Your task to perform on an android device: change timer sound Image 0: 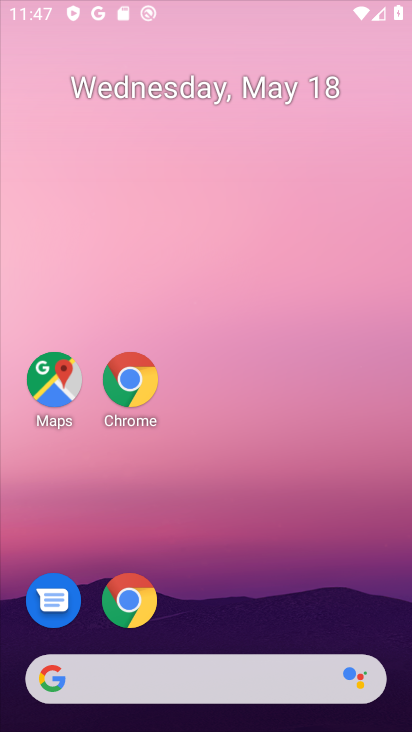
Step 0: drag from (286, 697) to (202, 137)
Your task to perform on an android device: change timer sound Image 1: 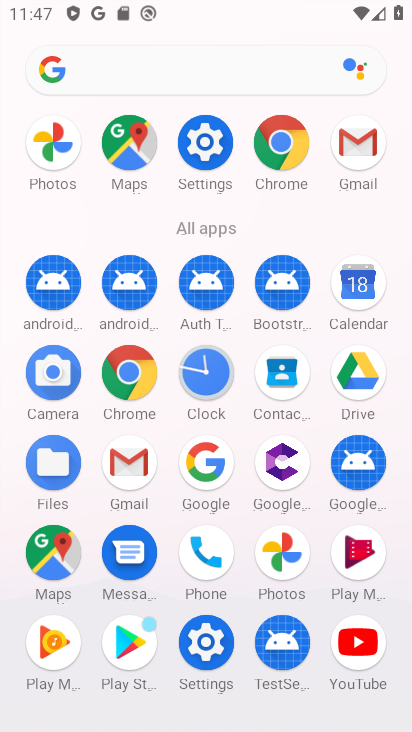
Step 1: click (201, 380)
Your task to perform on an android device: change timer sound Image 2: 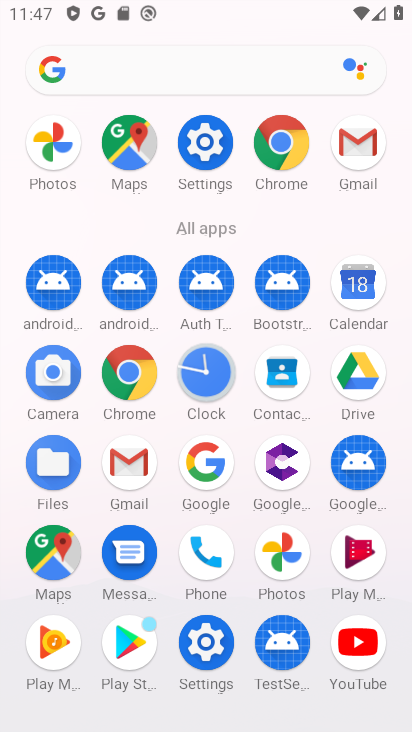
Step 2: click (204, 379)
Your task to perform on an android device: change timer sound Image 3: 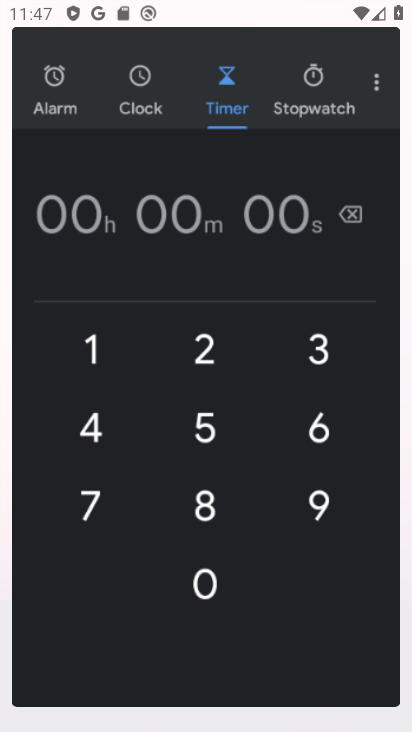
Step 3: click (204, 379)
Your task to perform on an android device: change timer sound Image 4: 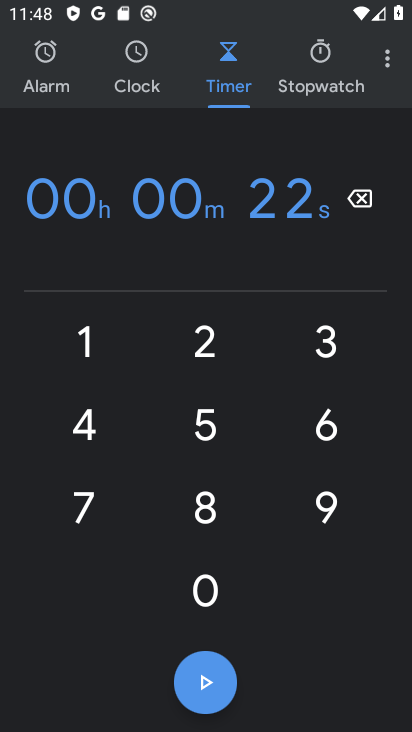
Step 4: click (202, 516)
Your task to perform on an android device: change timer sound Image 5: 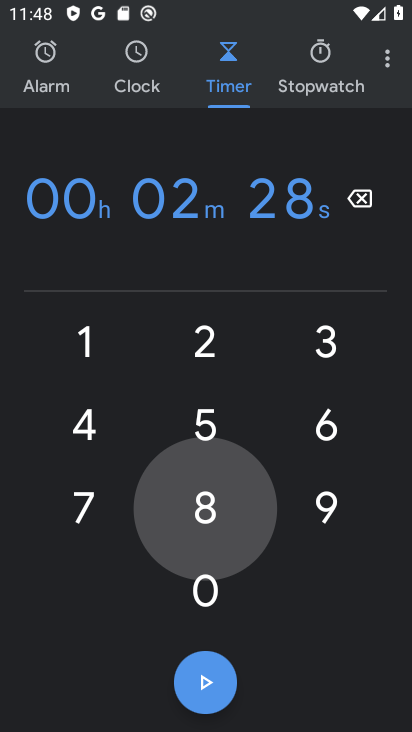
Step 5: click (208, 493)
Your task to perform on an android device: change timer sound Image 6: 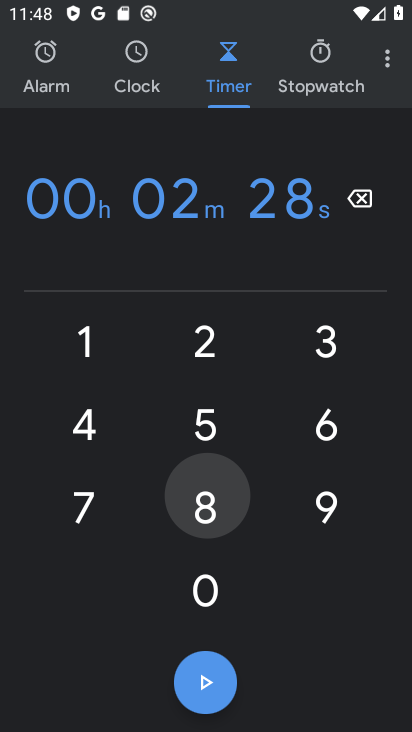
Step 6: click (208, 493)
Your task to perform on an android device: change timer sound Image 7: 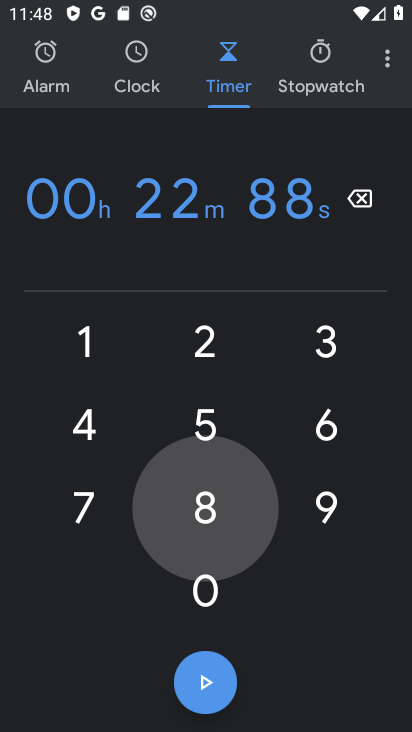
Step 7: click (209, 493)
Your task to perform on an android device: change timer sound Image 8: 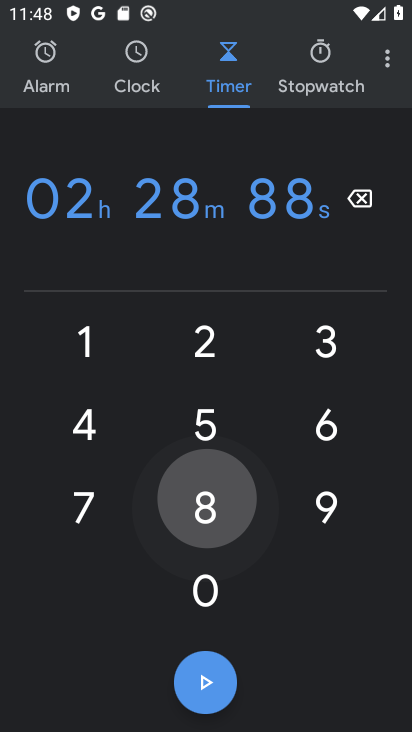
Step 8: click (209, 493)
Your task to perform on an android device: change timer sound Image 9: 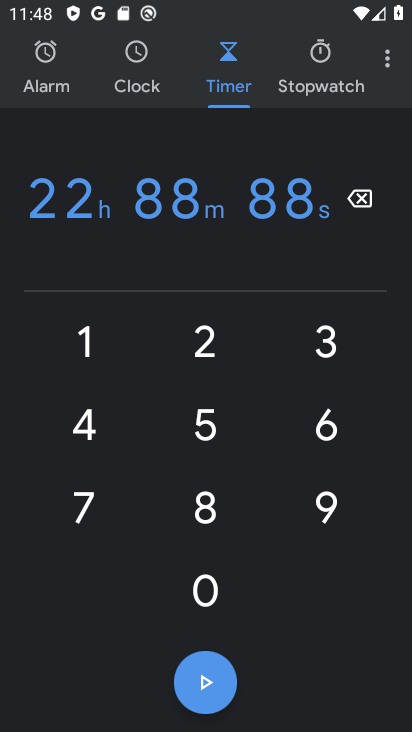
Step 9: click (383, 52)
Your task to perform on an android device: change timer sound Image 10: 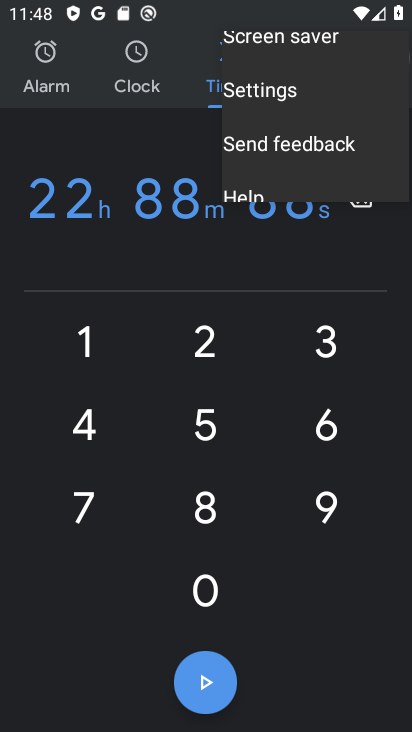
Step 10: click (383, 53)
Your task to perform on an android device: change timer sound Image 11: 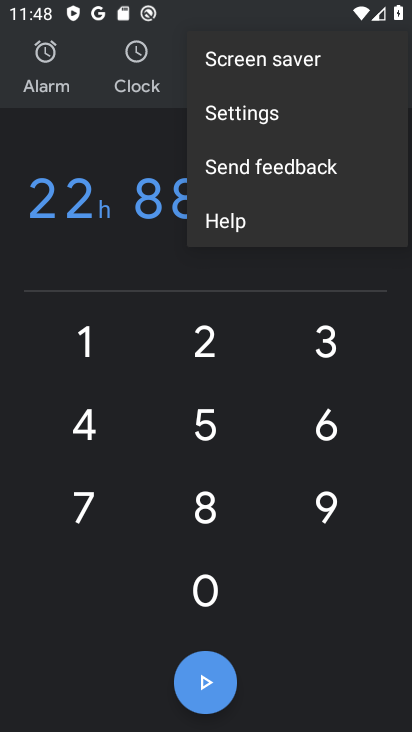
Step 11: click (383, 53)
Your task to perform on an android device: change timer sound Image 12: 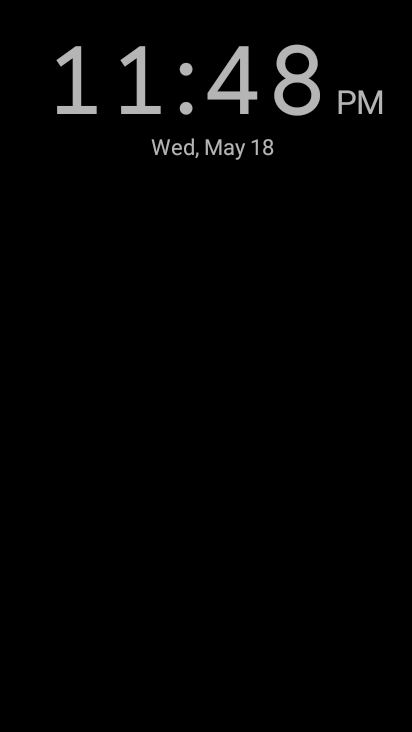
Step 12: press back button
Your task to perform on an android device: change timer sound Image 13: 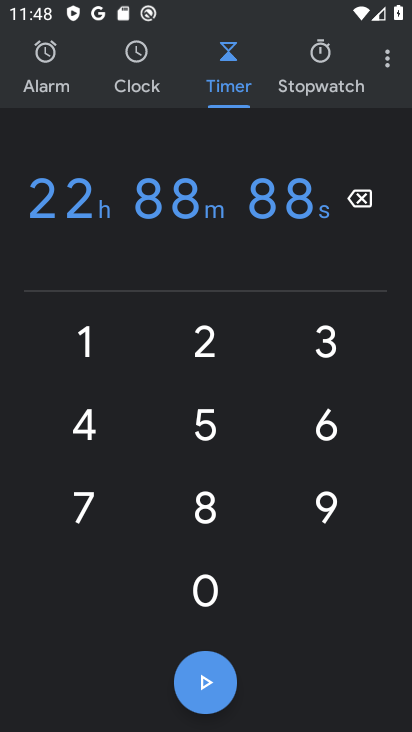
Step 13: click (374, 51)
Your task to perform on an android device: change timer sound Image 14: 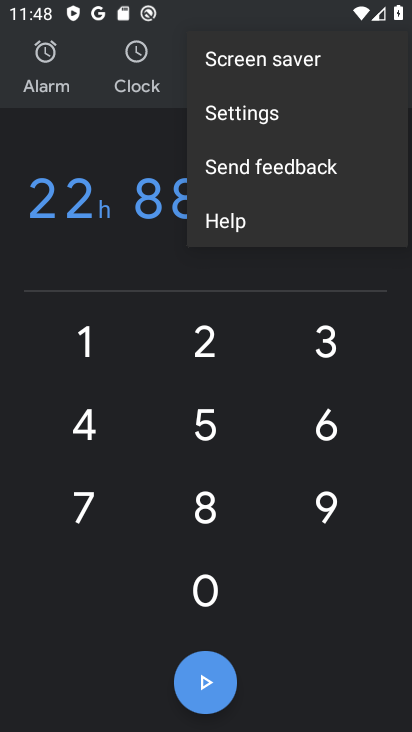
Step 14: click (244, 117)
Your task to perform on an android device: change timer sound Image 15: 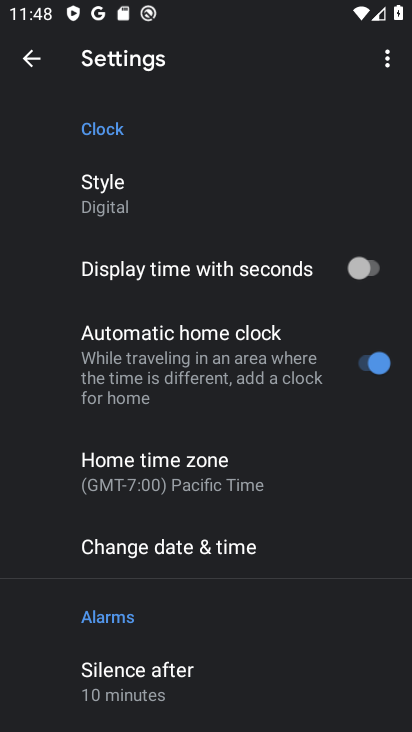
Step 15: click (154, 549)
Your task to perform on an android device: change timer sound Image 16: 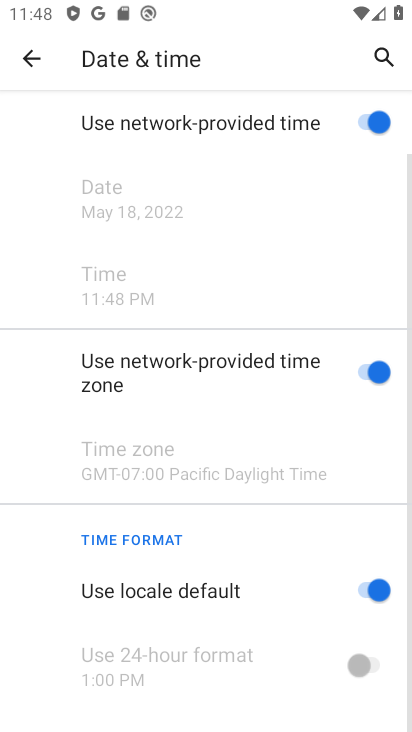
Step 16: drag from (180, 597) to (118, 256)
Your task to perform on an android device: change timer sound Image 17: 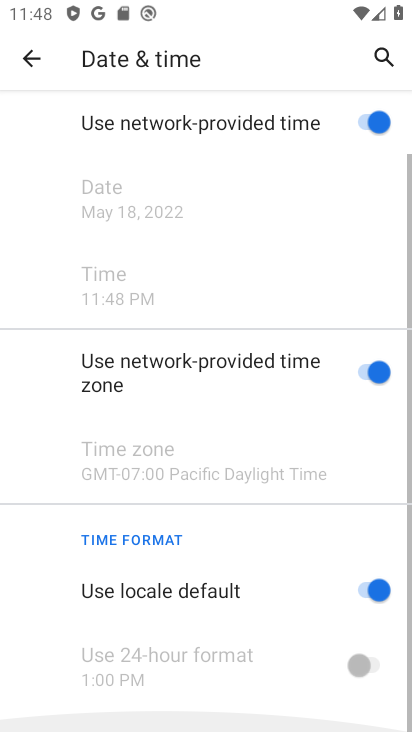
Step 17: drag from (220, 531) to (209, 227)
Your task to perform on an android device: change timer sound Image 18: 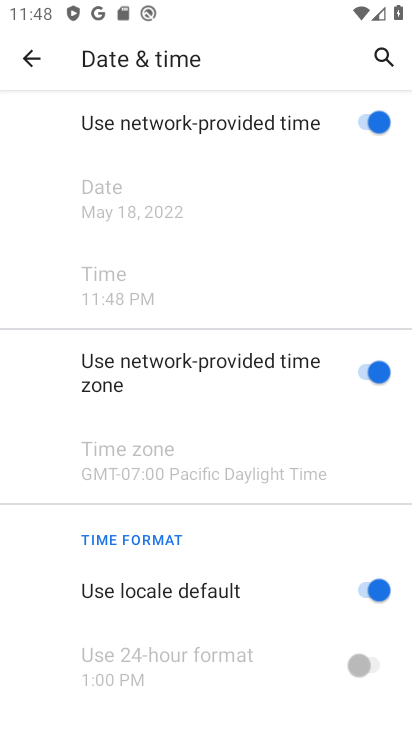
Step 18: click (27, 54)
Your task to perform on an android device: change timer sound Image 19: 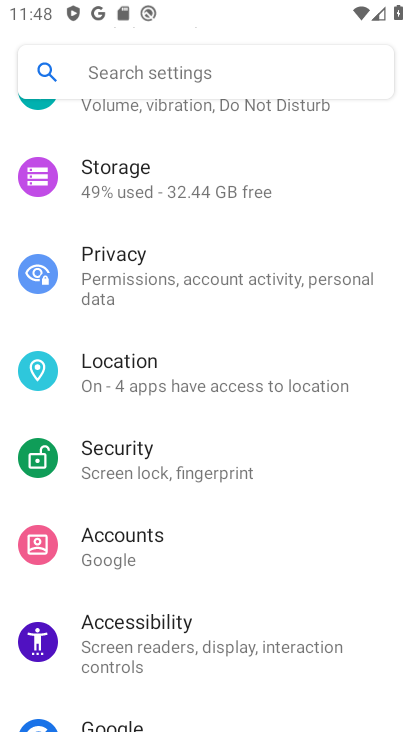
Step 19: drag from (183, 546) to (154, 169)
Your task to perform on an android device: change timer sound Image 20: 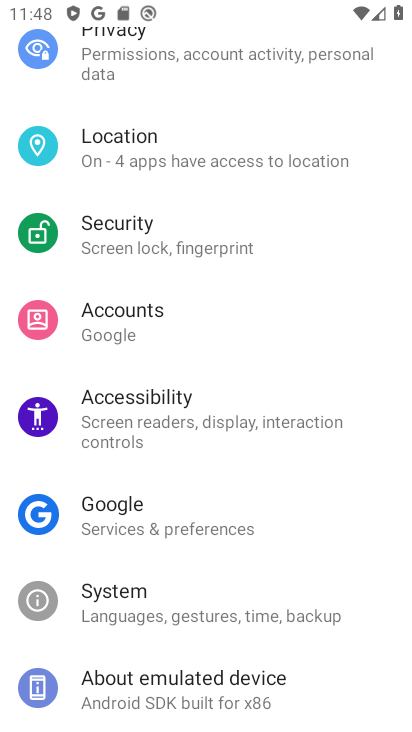
Step 20: press back button
Your task to perform on an android device: change timer sound Image 21: 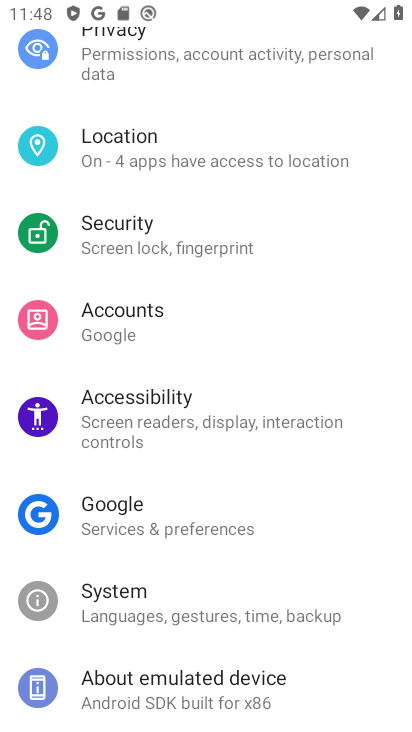
Step 21: press back button
Your task to perform on an android device: change timer sound Image 22: 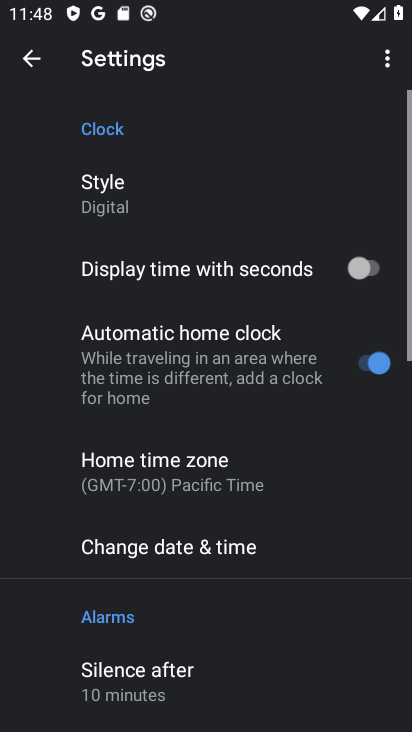
Step 22: press back button
Your task to perform on an android device: change timer sound Image 23: 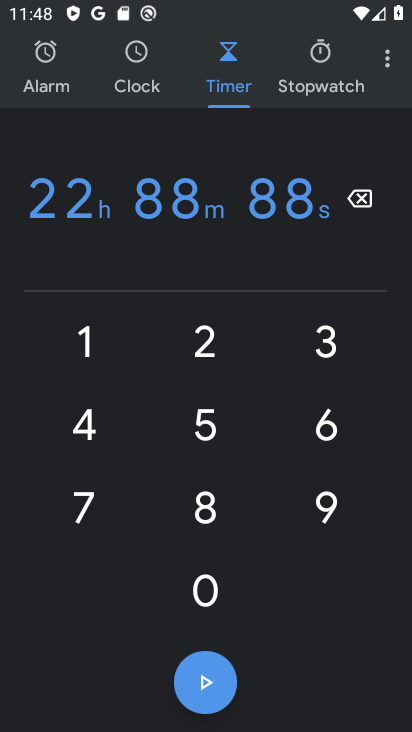
Step 23: press back button
Your task to perform on an android device: change timer sound Image 24: 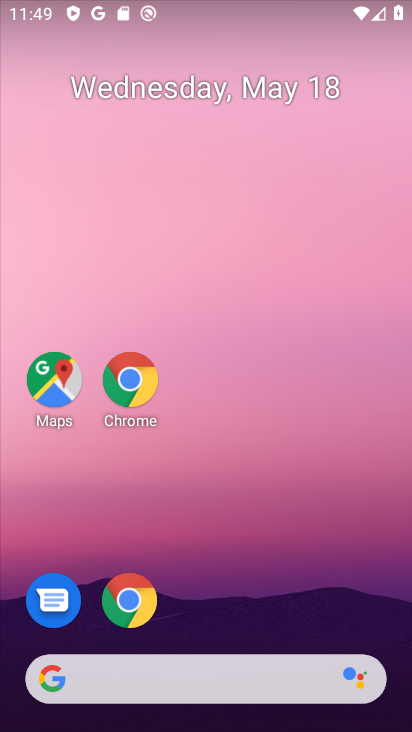
Step 24: drag from (215, 571) to (182, 5)
Your task to perform on an android device: change timer sound Image 25: 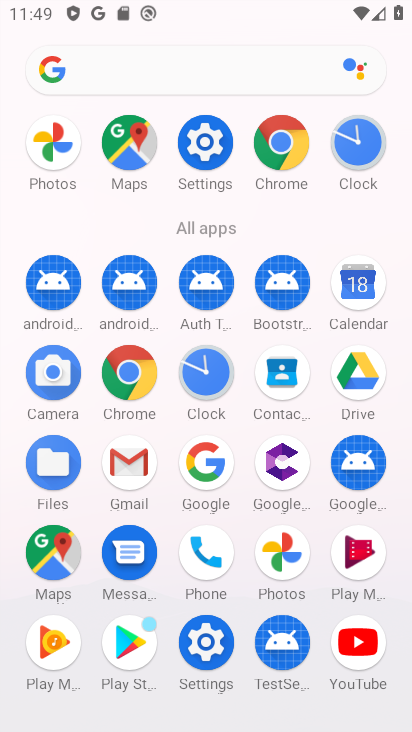
Step 25: click (209, 367)
Your task to perform on an android device: change timer sound Image 26: 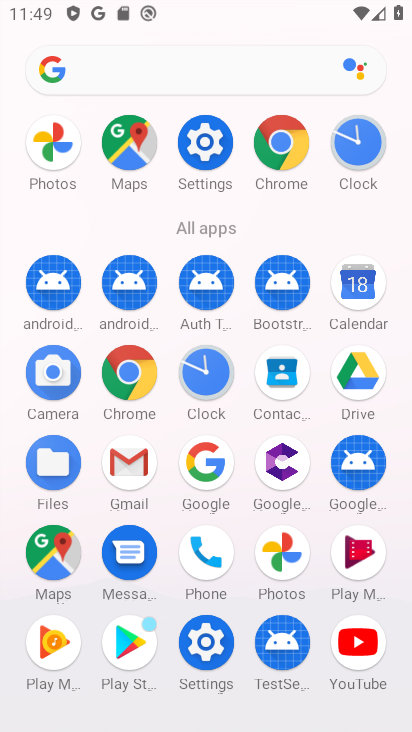
Step 26: click (209, 367)
Your task to perform on an android device: change timer sound Image 27: 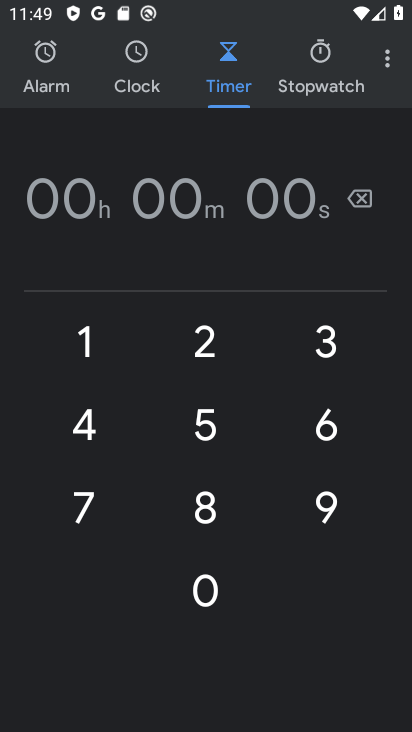
Step 27: click (383, 59)
Your task to perform on an android device: change timer sound Image 28: 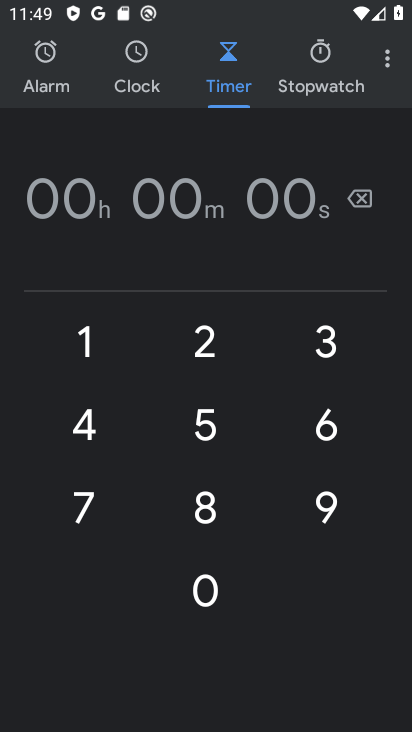
Step 28: click (384, 59)
Your task to perform on an android device: change timer sound Image 29: 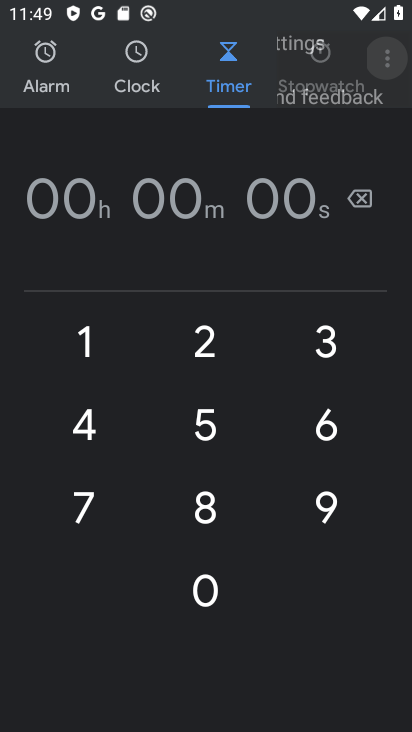
Step 29: click (385, 59)
Your task to perform on an android device: change timer sound Image 30: 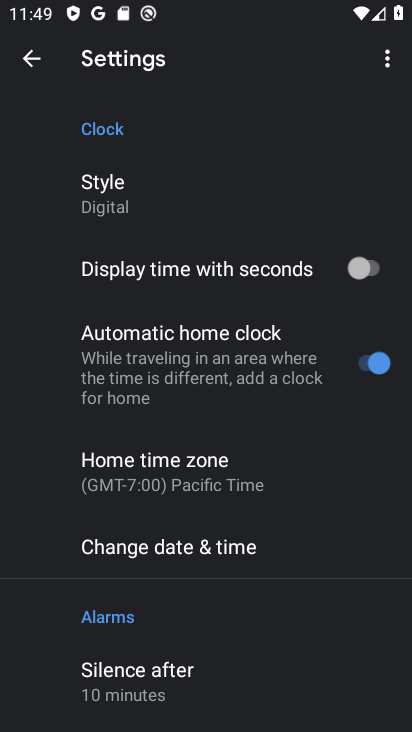
Step 30: drag from (163, 495) to (190, 179)
Your task to perform on an android device: change timer sound Image 31: 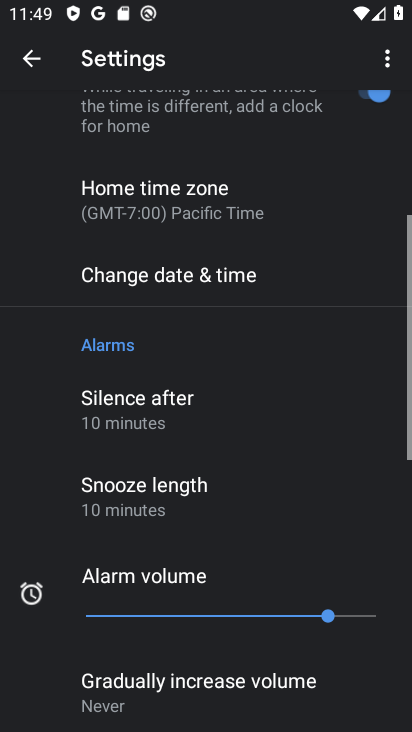
Step 31: drag from (190, 489) to (140, 173)
Your task to perform on an android device: change timer sound Image 32: 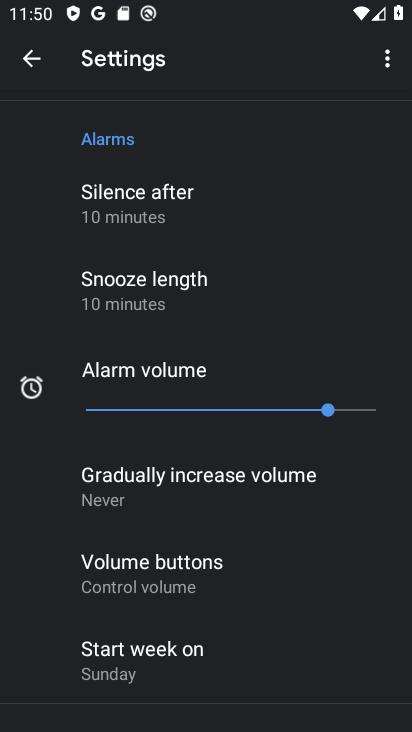
Step 32: drag from (166, 254) to (184, 528)
Your task to perform on an android device: change timer sound Image 33: 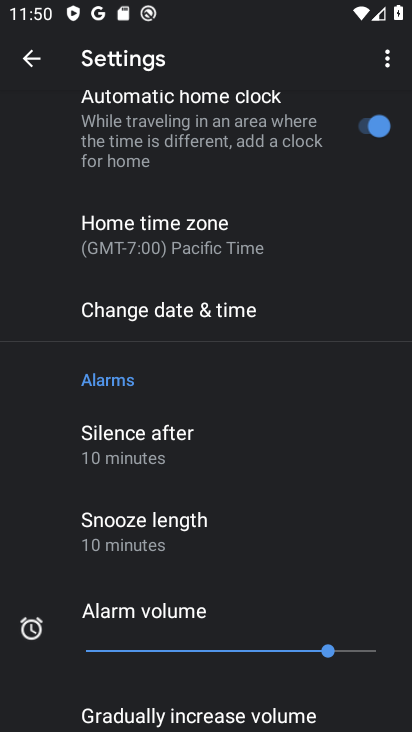
Step 33: drag from (145, 254) to (197, 590)
Your task to perform on an android device: change timer sound Image 34: 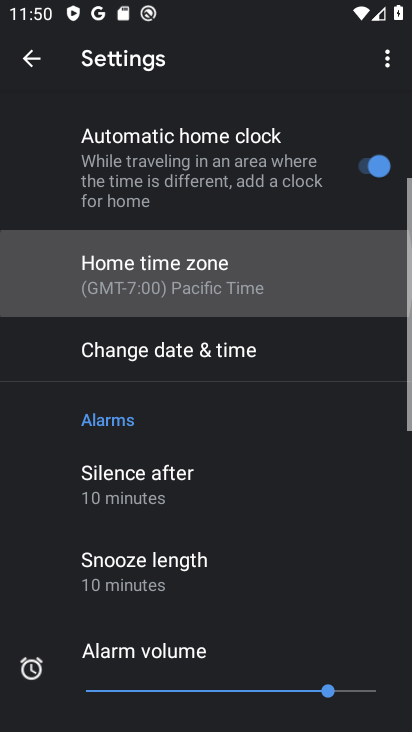
Step 34: drag from (161, 305) to (226, 724)
Your task to perform on an android device: change timer sound Image 35: 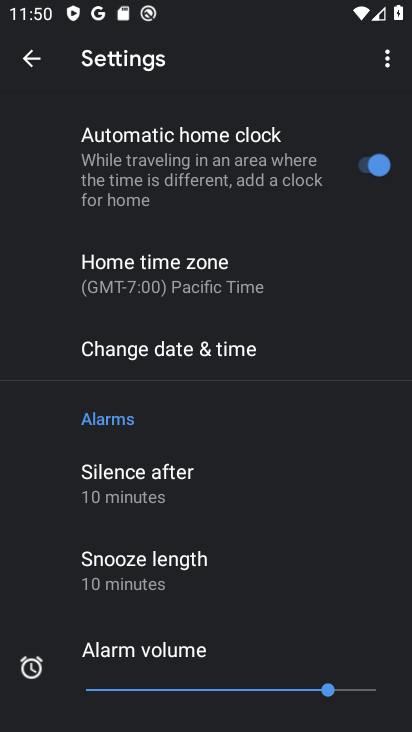
Step 35: drag from (119, 270) to (168, 523)
Your task to perform on an android device: change timer sound Image 36: 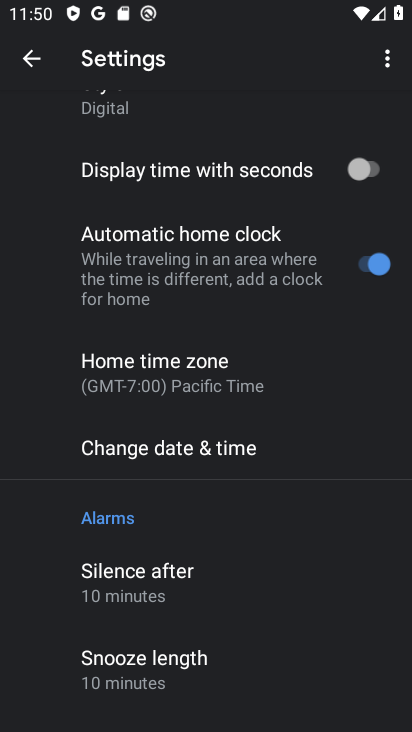
Step 36: drag from (147, 569) to (149, 316)
Your task to perform on an android device: change timer sound Image 37: 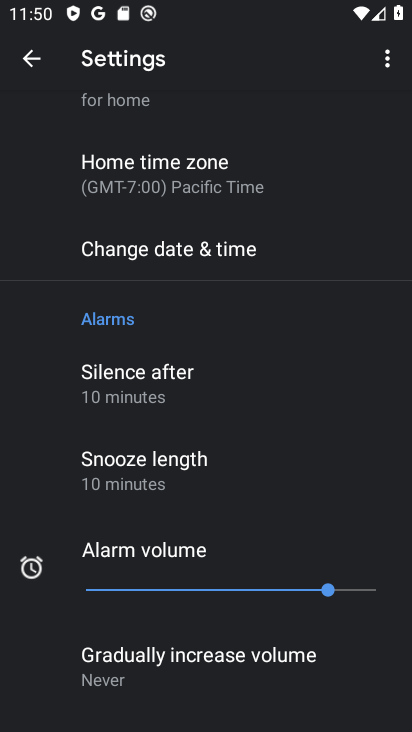
Step 37: drag from (156, 514) to (179, 136)
Your task to perform on an android device: change timer sound Image 38: 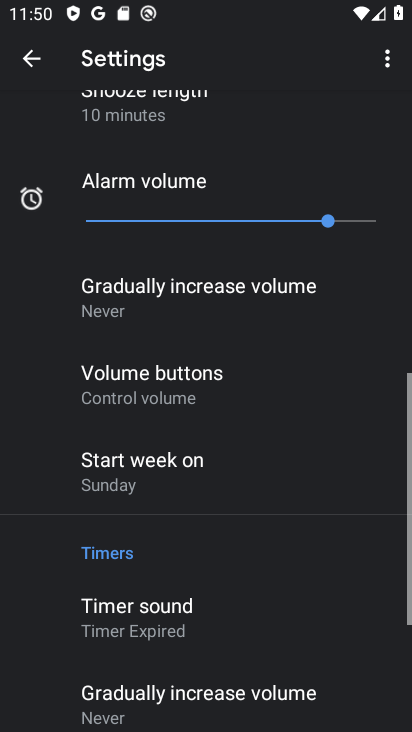
Step 38: drag from (187, 350) to (187, 88)
Your task to perform on an android device: change timer sound Image 39: 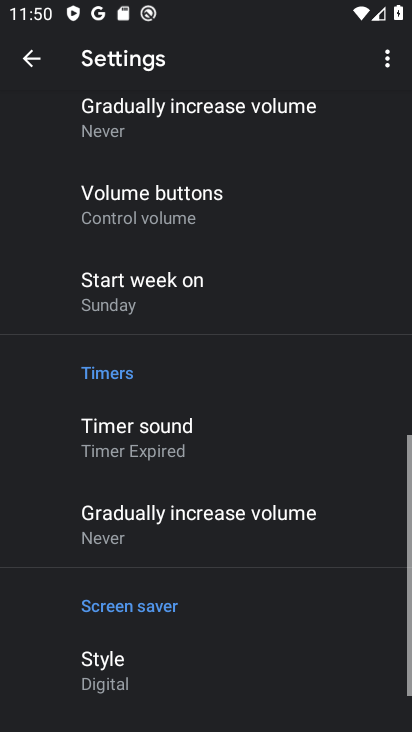
Step 39: drag from (182, 329) to (174, 77)
Your task to perform on an android device: change timer sound Image 40: 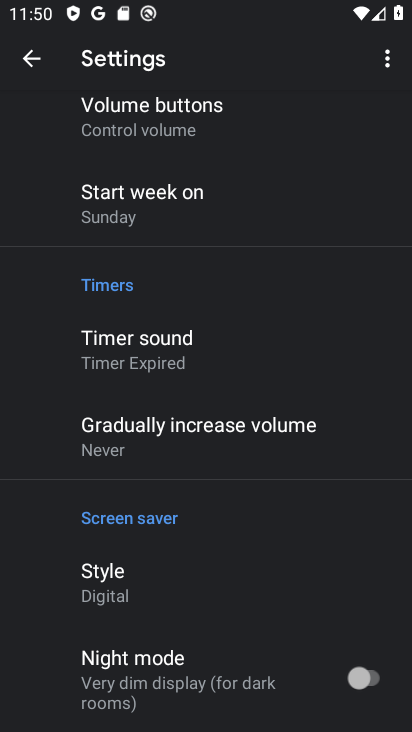
Step 40: click (111, 357)
Your task to perform on an android device: change timer sound Image 41: 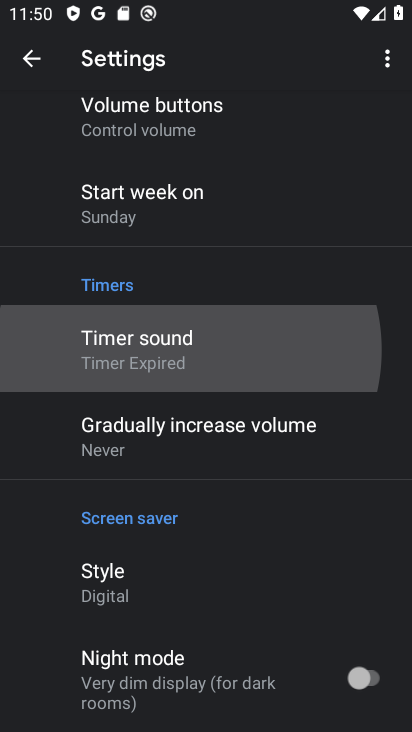
Step 41: click (111, 357)
Your task to perform on an android device: change timer sound Image 42: 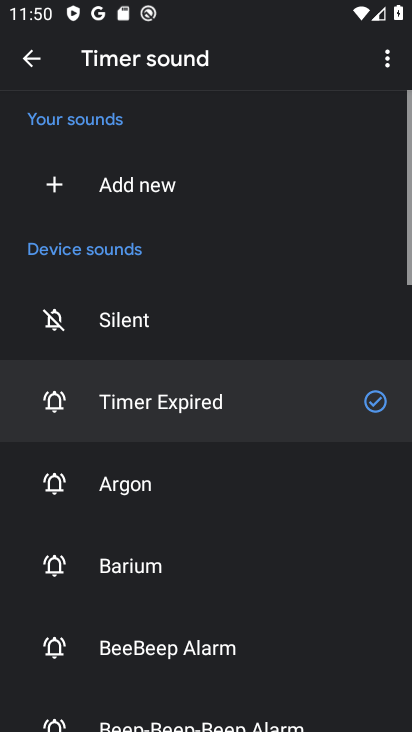
Step 42: click (119, 349)
Your task to perform on an android device: change timer sound Image 43: 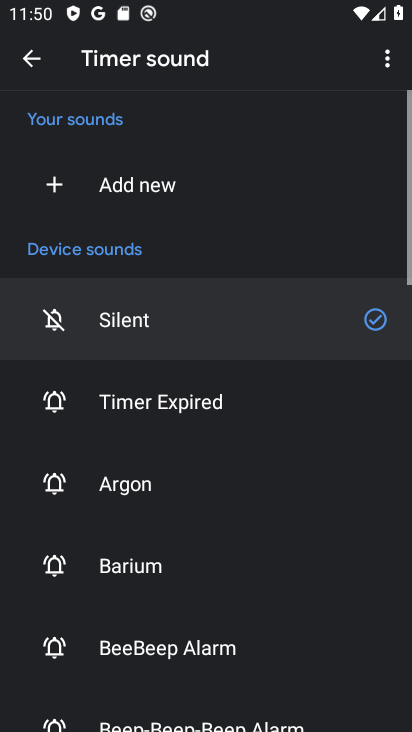
Step 43: click (51, 490)
Your task to perform on an android device: change timer sound Image 44: 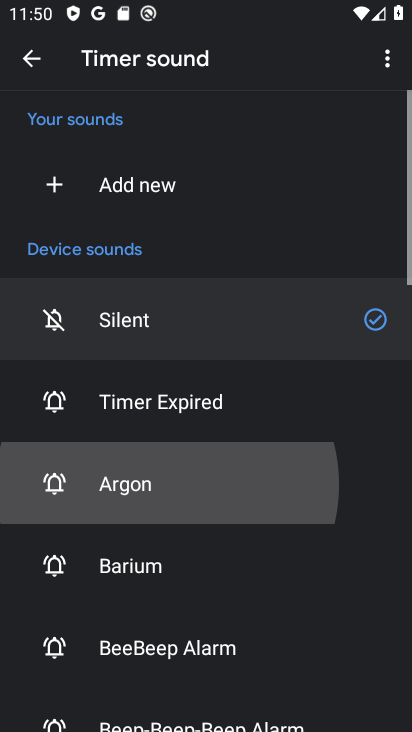
Step 44: click (52, 489)
Your task to perform on an android device: change timer sound Image 45: 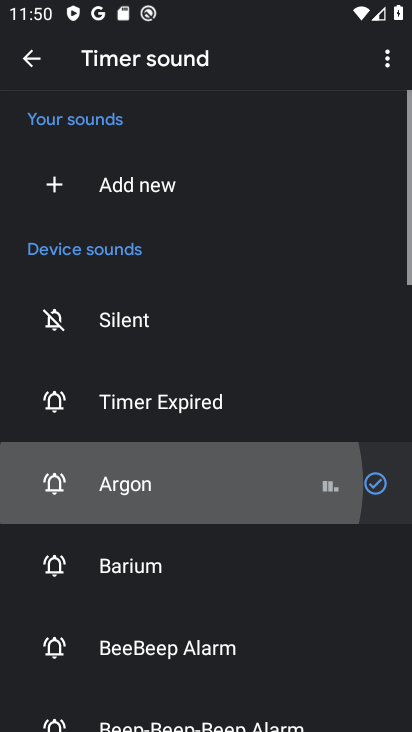
Step 45: click (53, 488)
Your task to perform on an android device: change timer sound Image 46: 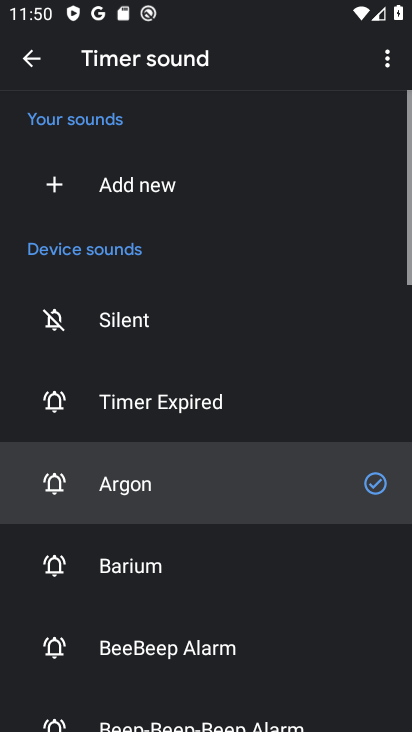
Step 46: click (54, 487)
Your task to perform on an android device: change timer sound Image 47: 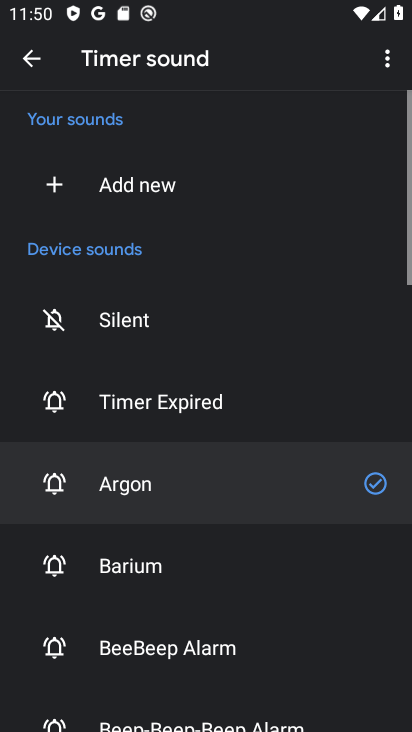
Step 47: task complete